Your task to perform on an android device: set default search engine in the chrome app Image 0: 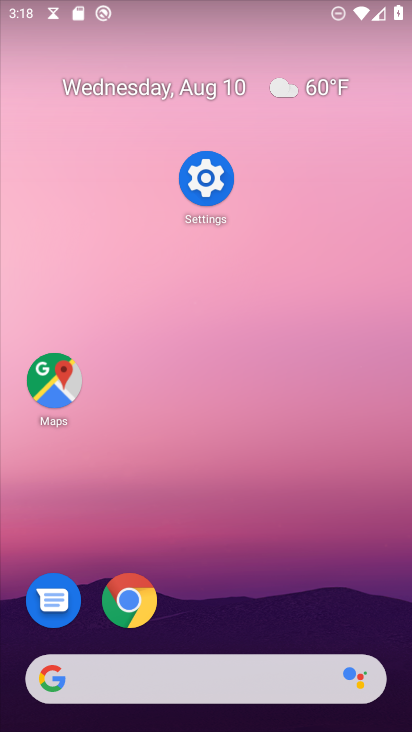
Step 0: press home button
Your task to perform on an android device: set default search engine in the chrome app Image 1: 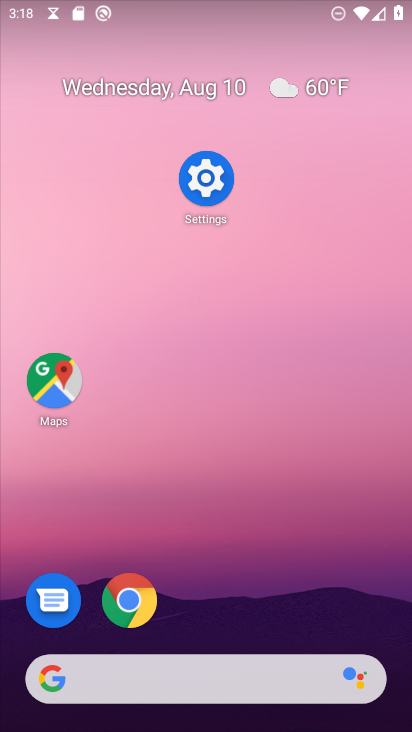
Step 1: click (123, 607)
Your task to perform on an android device: set default search engine in the chrome app Image 2: 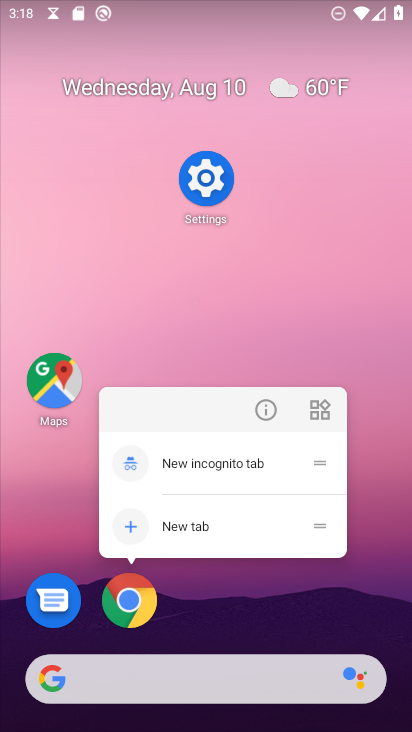
Step 2: click (123, 607)
Your task to perform on an android device: set default search engine in the chrome app Image 3: 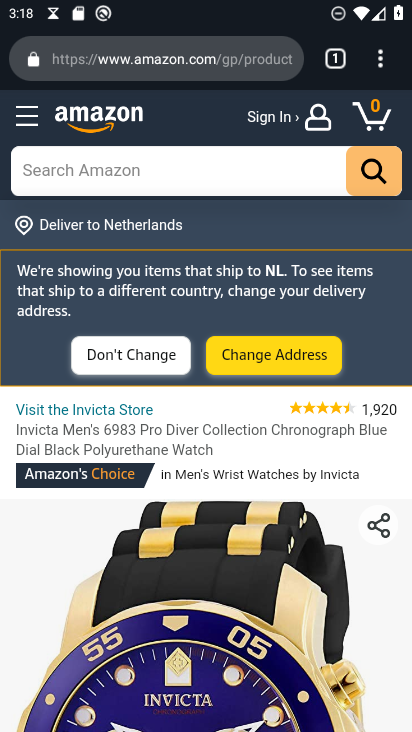
Step 3: drag from (387, 64) to (154, 633)
Your task to perform on an android device: set default search engine in the chrome app Image 4: 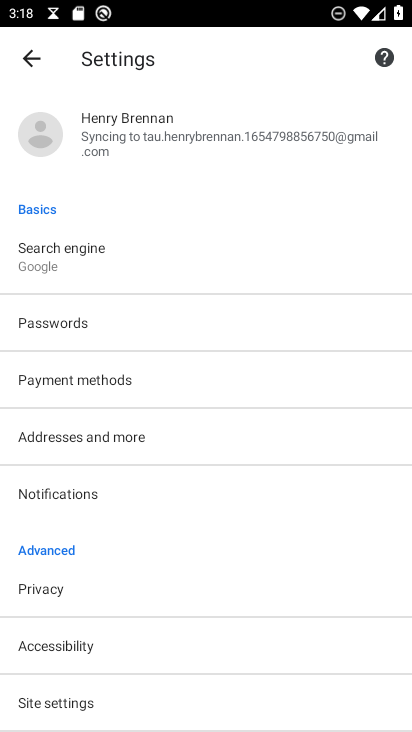
Step 4: click (40, 245)
Your task to perform on an android device: set default search engine in the chrome app Image 5: 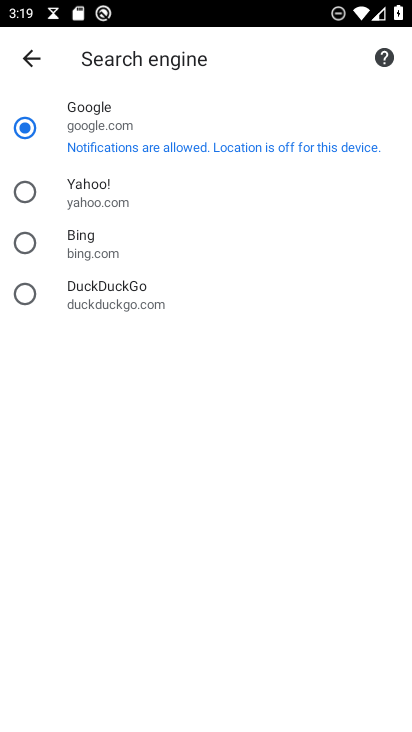
Step 5: click (30, 248)
Your task to perform on an android device: set default search engine in the chrome app Image 6: 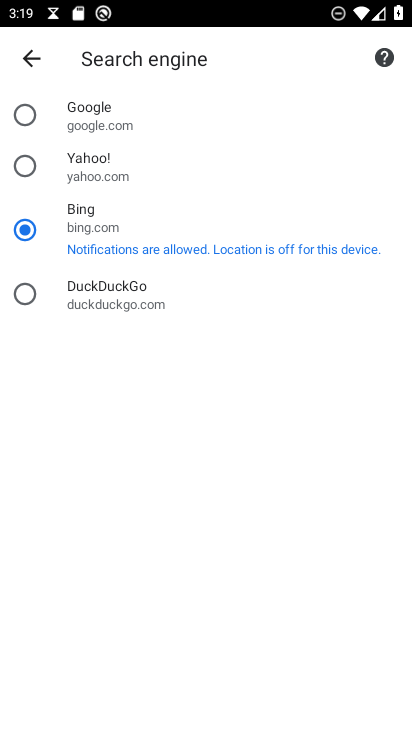
Step 6: task complete